Your task to perform on an android device: turn off data saver in the chrome app Image 0: 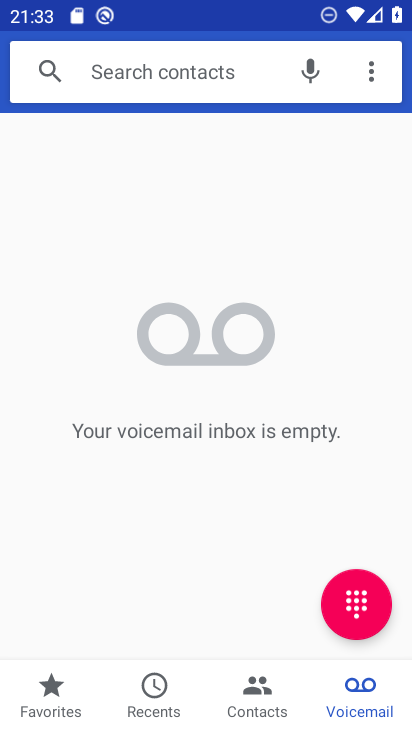
Step 0: press home button
Your task to perform on an android device: turn off data saver in the chrome app Image 1: 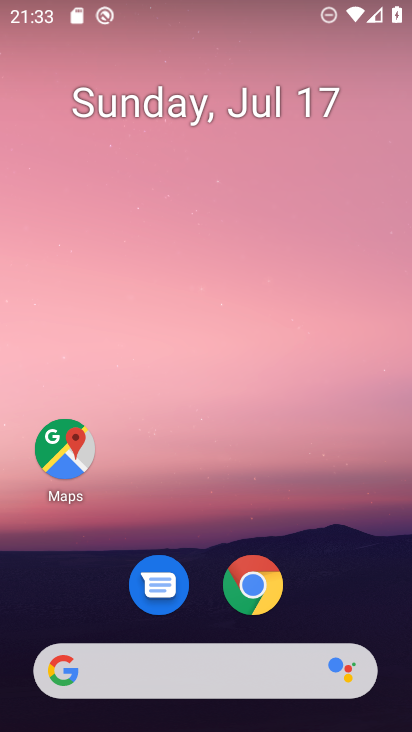
Step 1: drag from (198, 658) to (243, 163)
Your task to perform on an android device: turn off data saver in the chrome app Image 2: 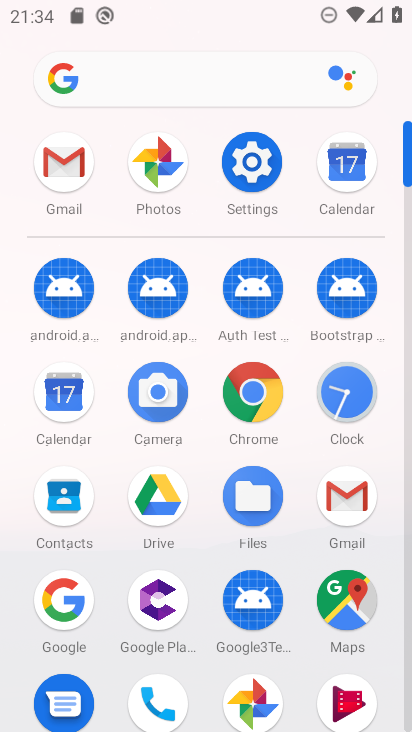
Step 2: click (254, 404)
Your task to perform on an android device: turn off data saver in the chrome app Image 3: 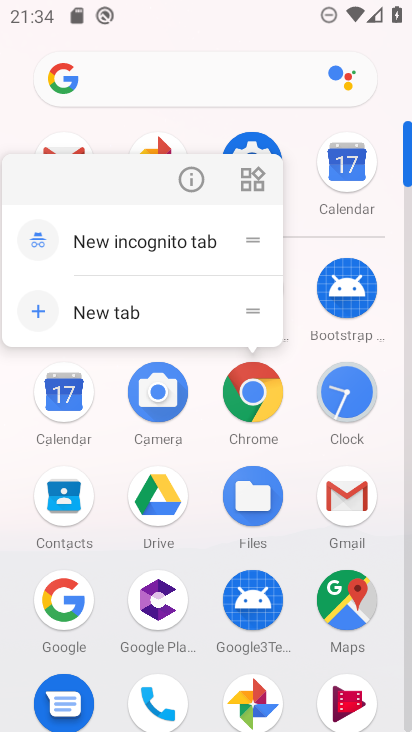
Step 3: click (263, 393)
Your task to perform on an android device: turn off data saver in the chrome app Image 4: 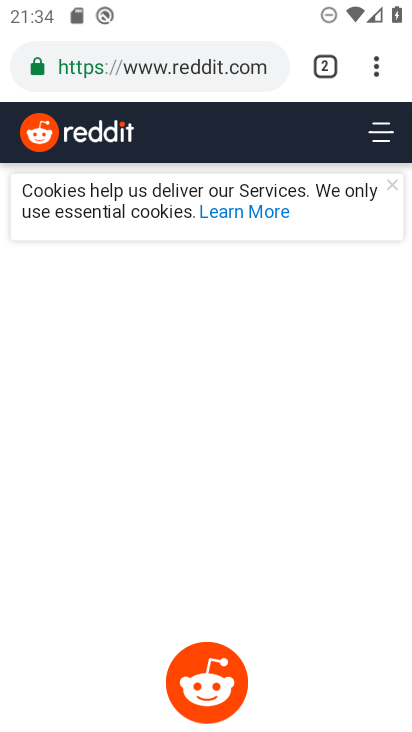
Step 4: drag from (375, 73) to (226, 595)
Your task to perform on an android device: turn off data saver in the chrome app Image 5: 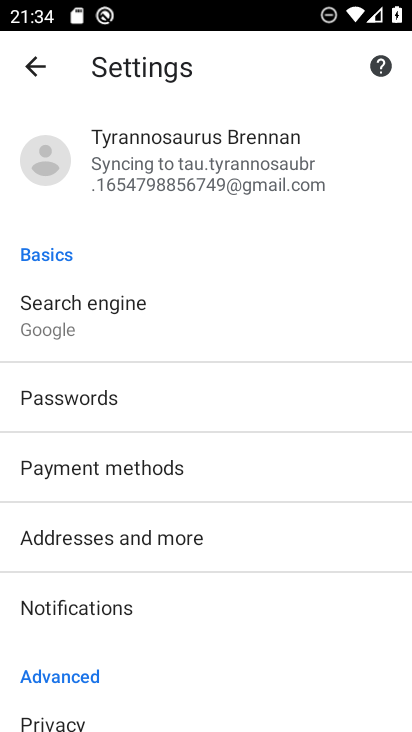
Step 5: drag from (196, 653) to (188, 224)
Your task to perform on an android device: turn off data saver in the chrome app Image 6: 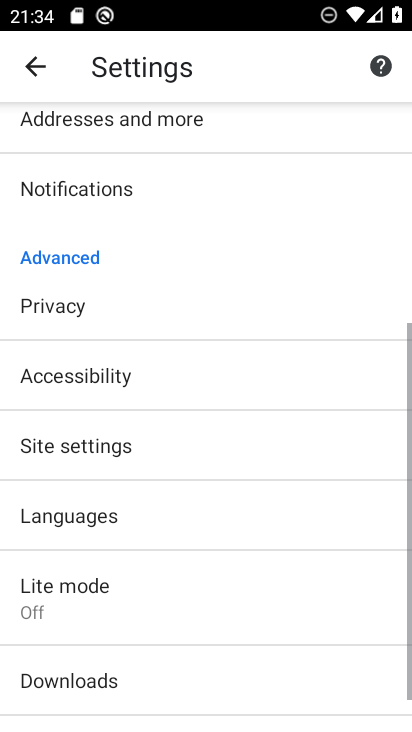
Step 6: drag from (203, 650) to (275, 348)
Your task to perform on an android device: turn off data saver in the chrome app Image 7: 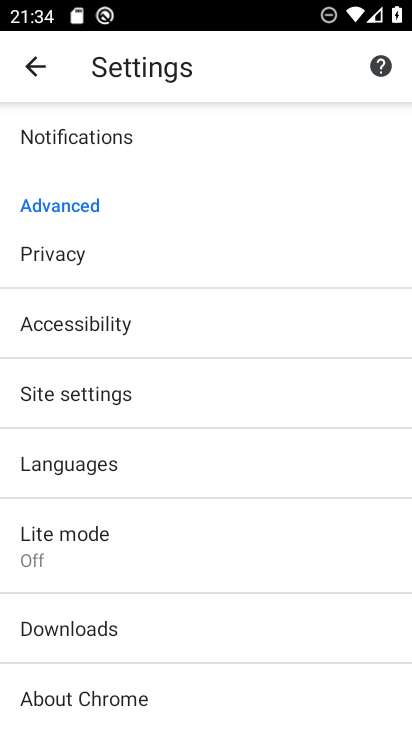
Step 7: click (112, 542)
Your task to perform on an android device: turn off data saver in the chrome app Image 8: 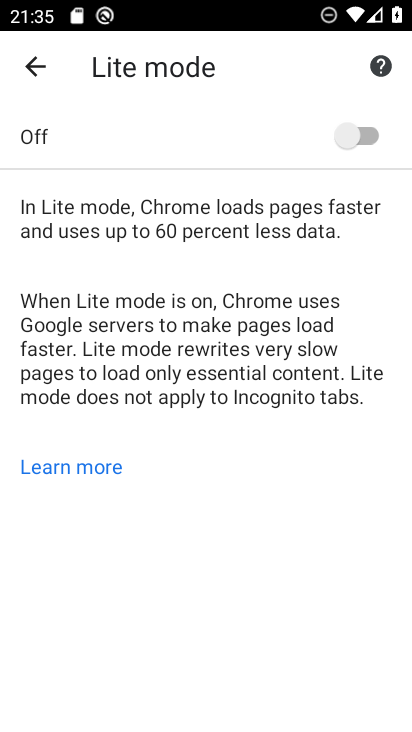
Step 8: task complete